Your task to perform on an android device: set an alarm Image 0: 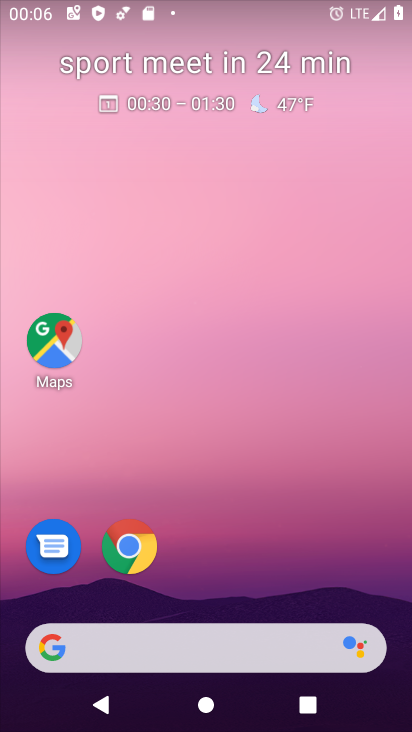
Step 0: drag from (344, 597) to (365, 2)
Your task to perform on an android device: set an alarm Image 1: 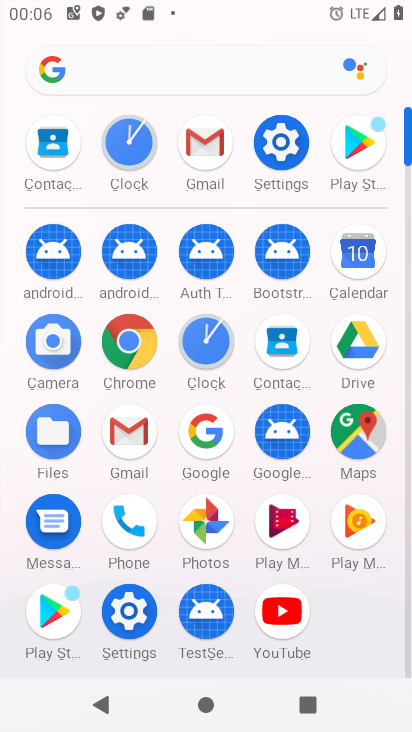
Step 1: click (123, 147)
Your task to perform on an android device: set an alarm Image 2: 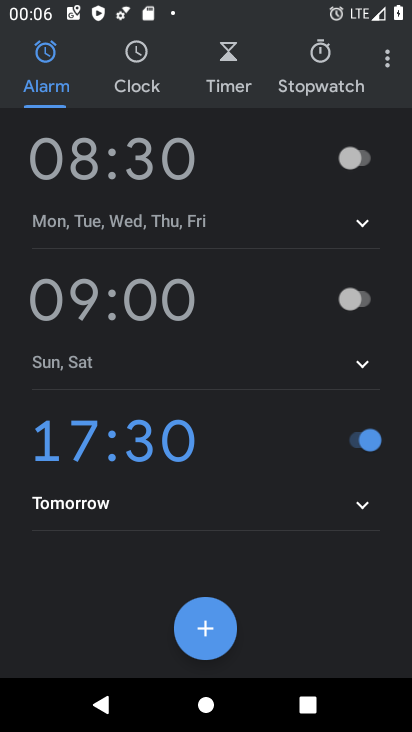
Step 2: click (207, 626)
Your task to perform on an android device: set an alarm Image 3: 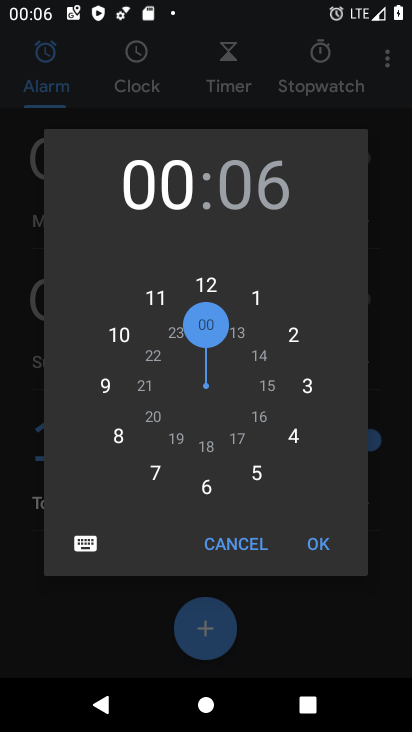
Step 3: click (211, 477)
Your task to perform on an android device: set an alarm Image 4: 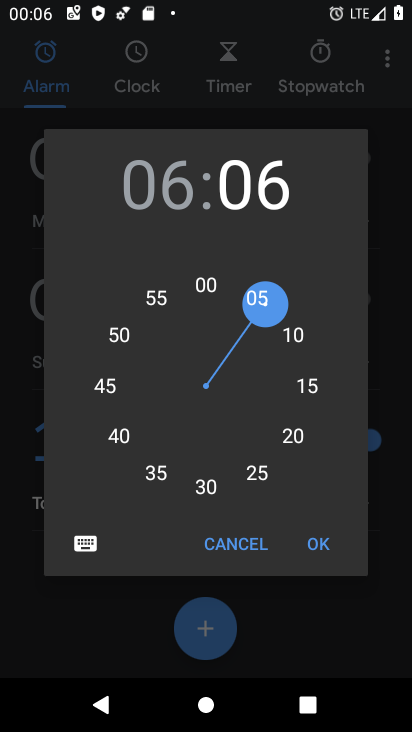
Step 4: click (199, 290)
Your task to perform on an android device: set an alarm Image 5: 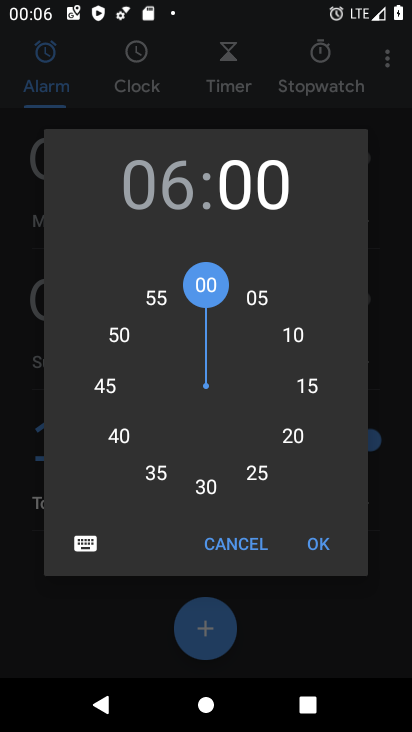
Step 5: click (329, 543)
Your task to perform on an android device: set an alarm Image 6: 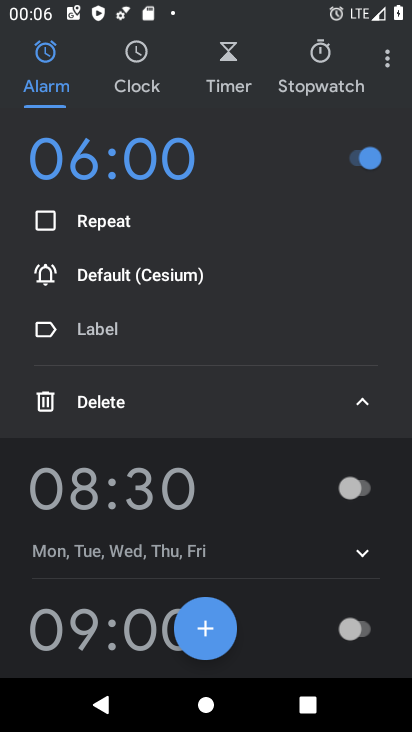
Step 6: task complete